Your task to perform on an android device: toggle airplane mode Image 0: 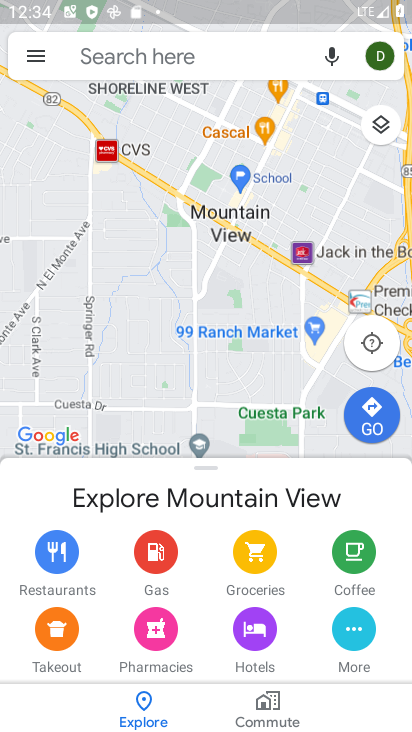
Step 0: press home button
Your task to perform on an android device: toggle airplane mode Image 1: 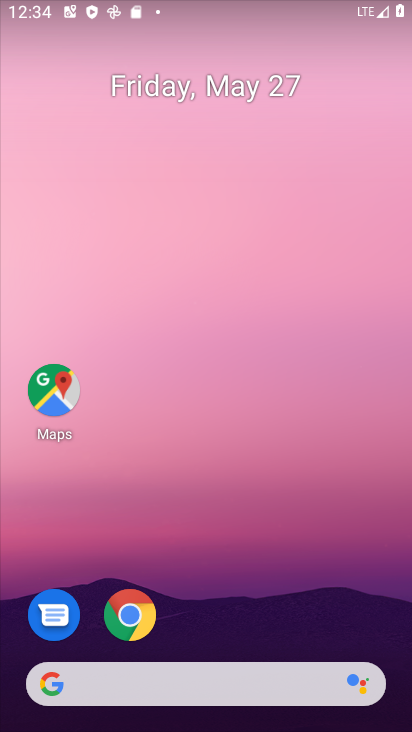
Step 1: drag from (271, 13) to (276, 719)
Your task to perform on an android device: toggle airplane mode Image 2: 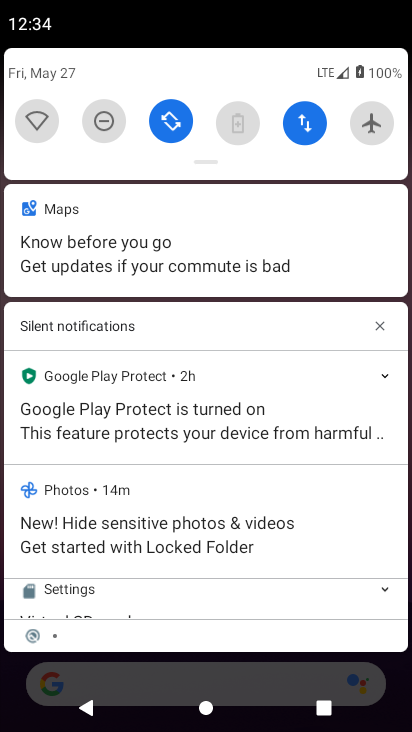
Step 2: drag from (246, 155) to (205, 721)
Your task to perform on an android device: toggle airplane mode Image 3: 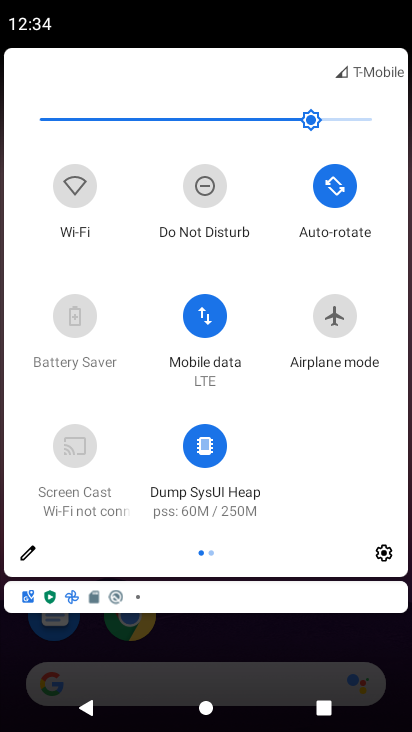
Step 3: click (334, 327)
Your task to perform on an android device: toggle airplane mode Image 4: 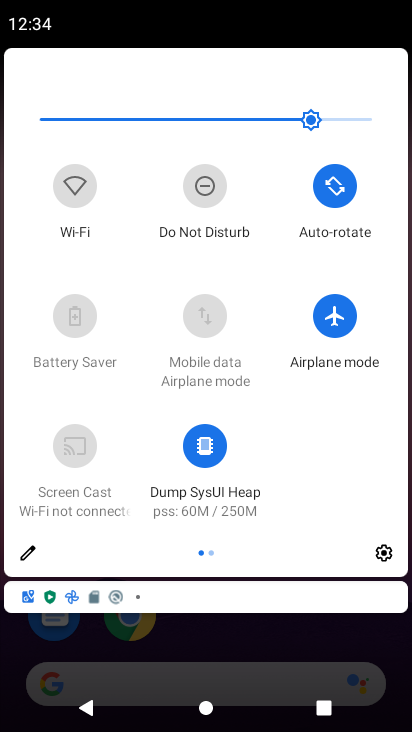
Step 4: task complete